Your task to perform on an android device: Clear all items from cart on newegg.com. Add "alienware area 51" to the cart on newegg.com Image 0: 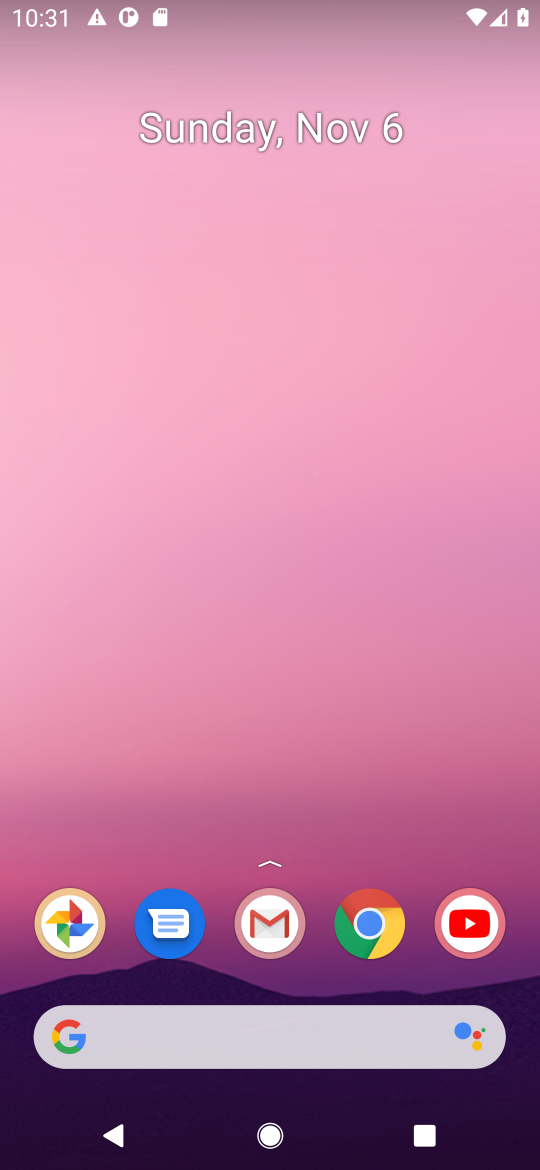
Step 0: click (371, 928)
Your task to perform on an android device: Clear all items from cart on newegg.com. Add "alienware area 51" to the cart on newegg.com Image 1: 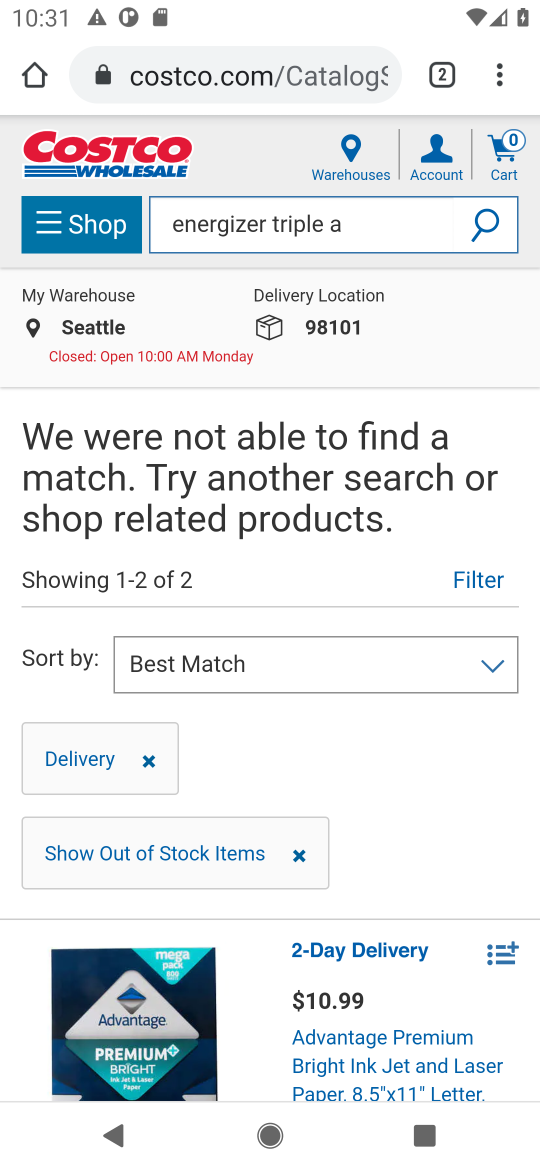
Step 1: click (262, 82)
Your task to perform on an android device: Clear all items from cart on newegg.com. Add "alienware area 51" to the cart on newegg.com Image 2: 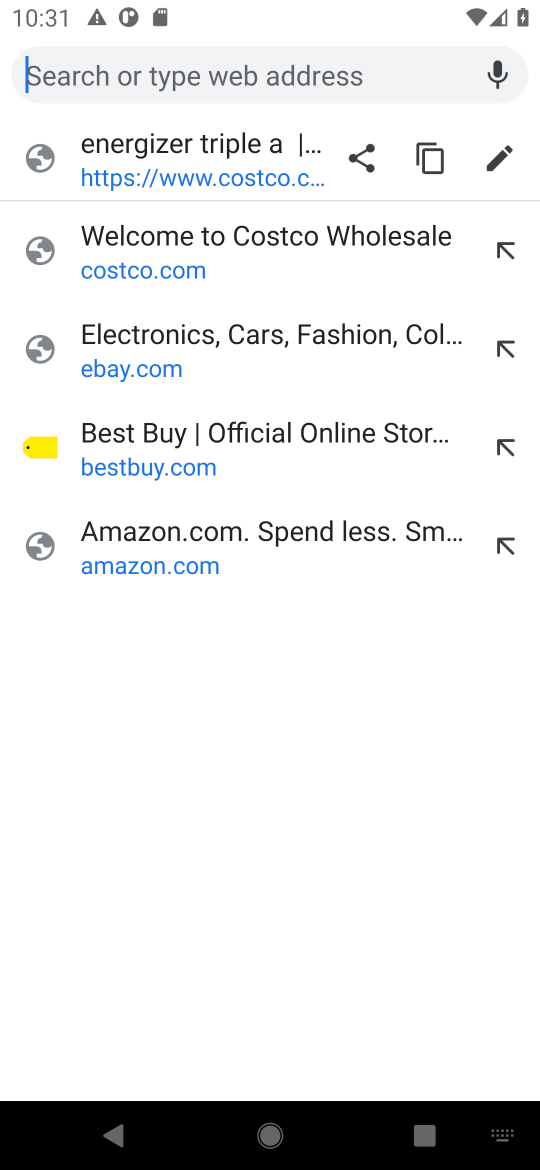
Step 2: type "newegg.com"
Your task to perform on an android device: Clear all items from cart on newegg.com. Add "alienware area 51" to the cart on newegg.com Image 3: 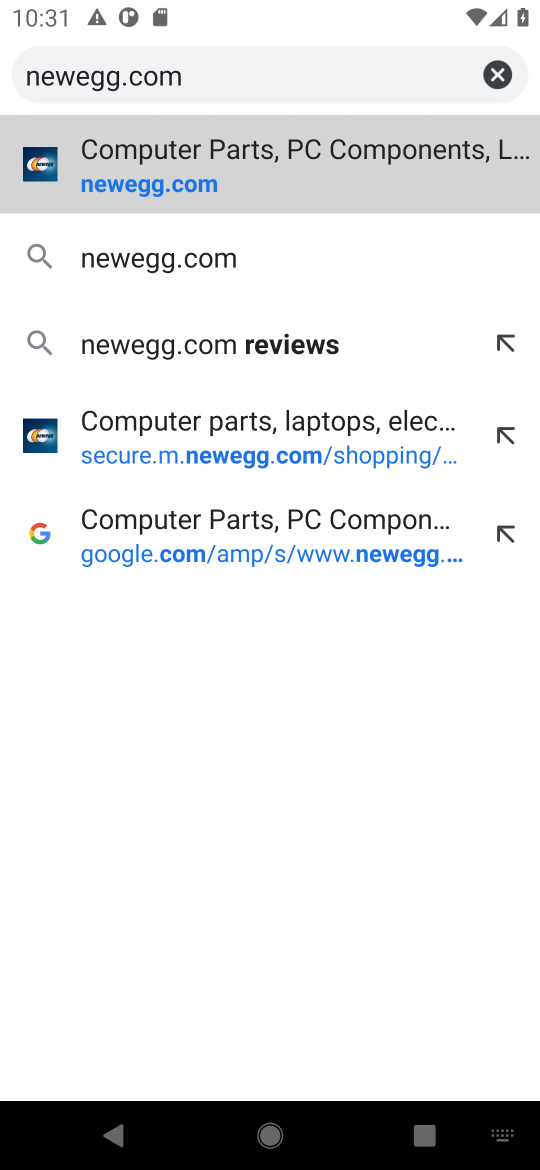
Step 3: click (145, 190)
Your task to perform on an android device: Clear all items from cart on newegg.com. Add "alienware area 51" to the cart on newegg.com Image 4: 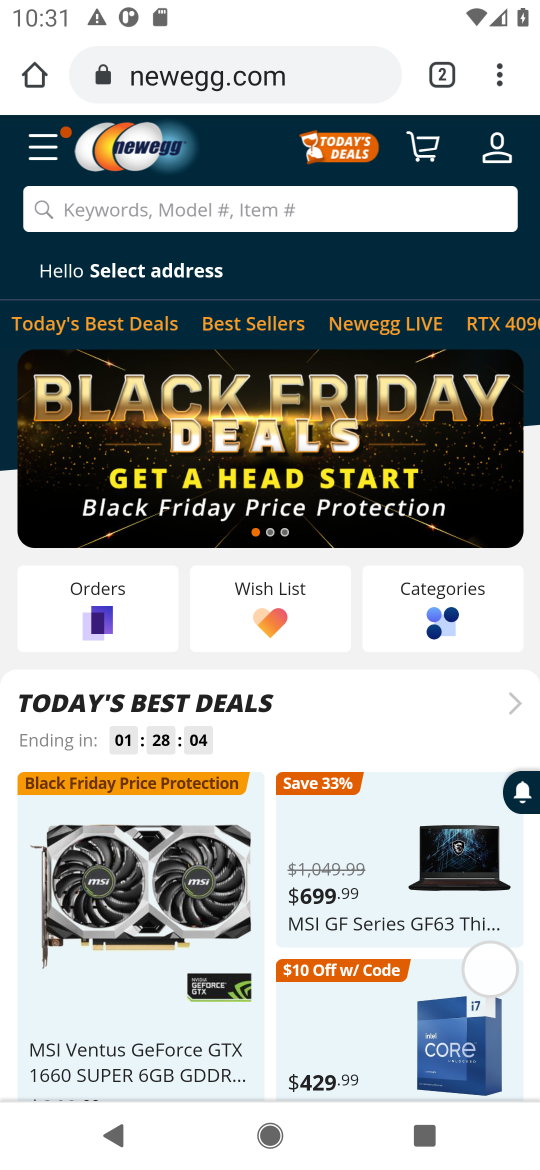
Step 4: click (431, 158)
Your task to perform on an android device: Clear all items from cart on newegg.com. Add "alienware area 51" to the cart on newegg.com Image 5: 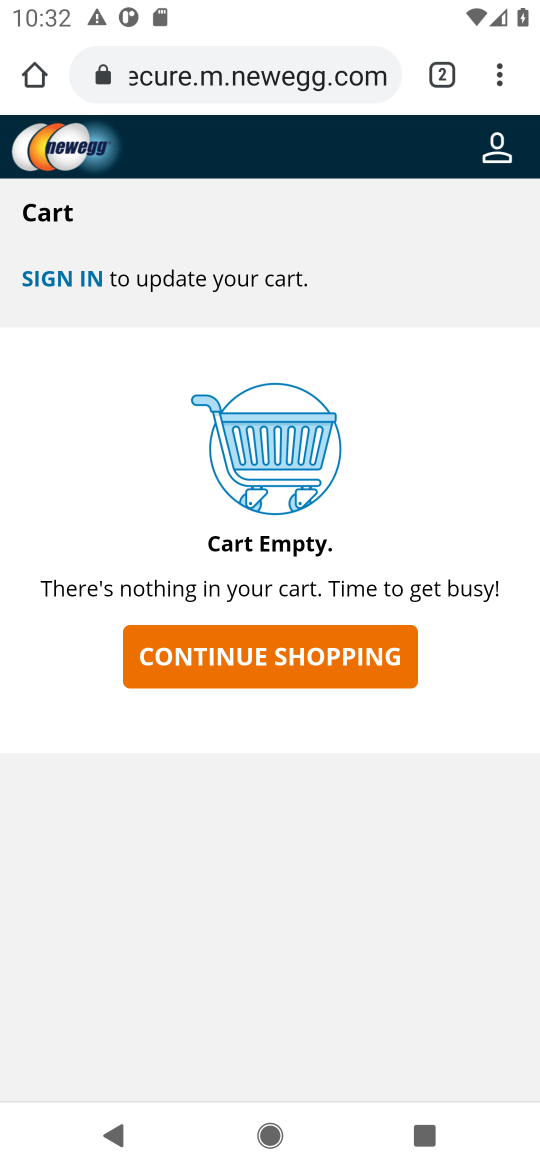
Step 5: click (250, 647)
Your task to perform on an android device: Clear all items from cart on newegg.com. Add "alienware area 51" to the cart on newegg.com Image 6: 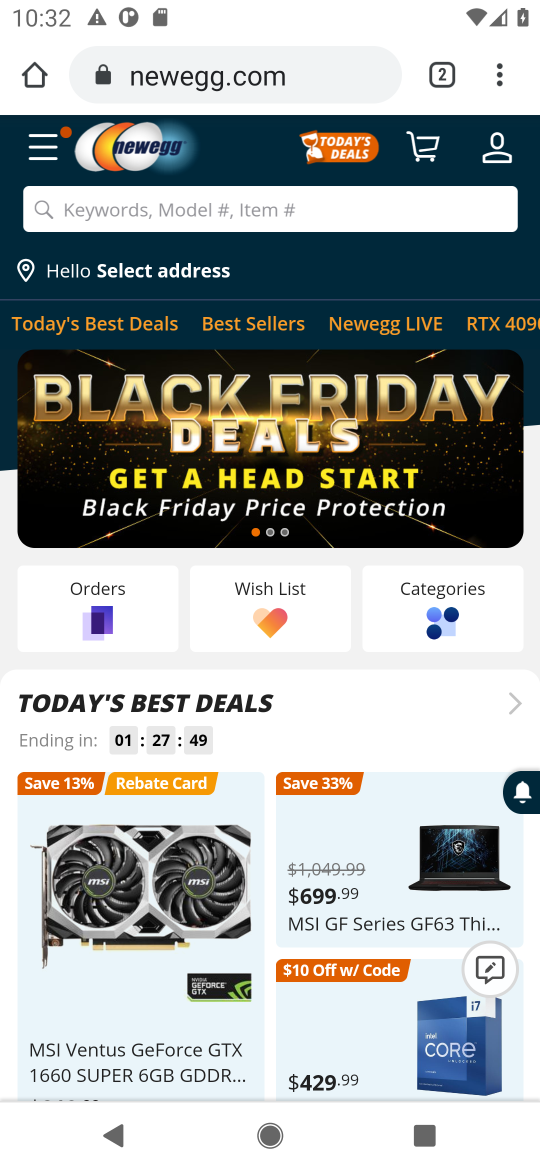
Step 6: click (195, 218)
Your task to perform on an android device: Clear all items from cart on newegg.com. Add "alienware area 51" to the cart on newegg.com Image 7: 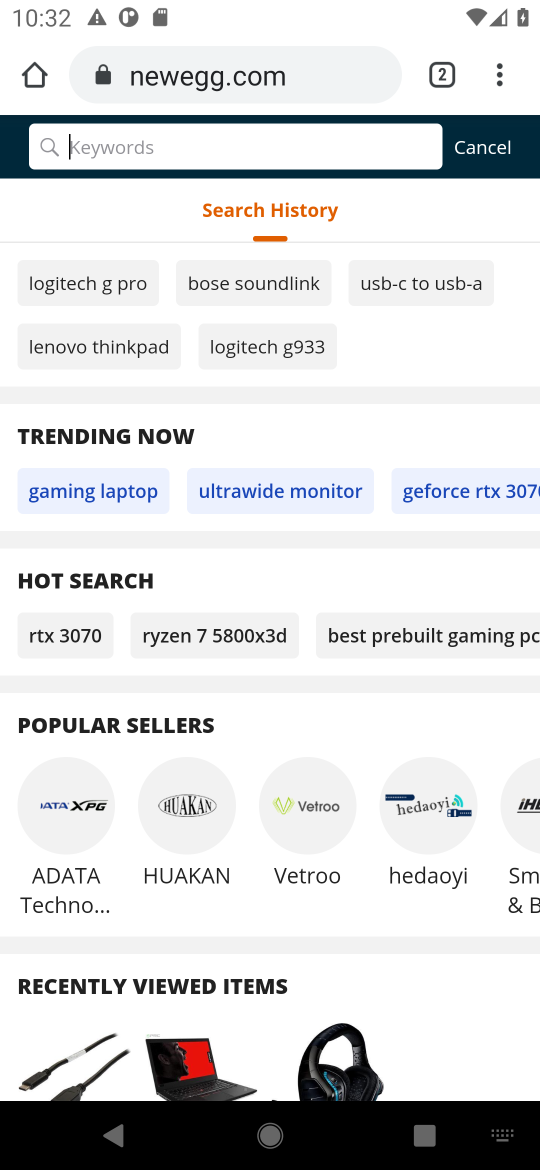
Step 7: type "alienware area 51"
Your task to perform on an android device: Clear all items from cart on newegg.com. Add "alienware area 51" to the cart on newegg.com Image 8: 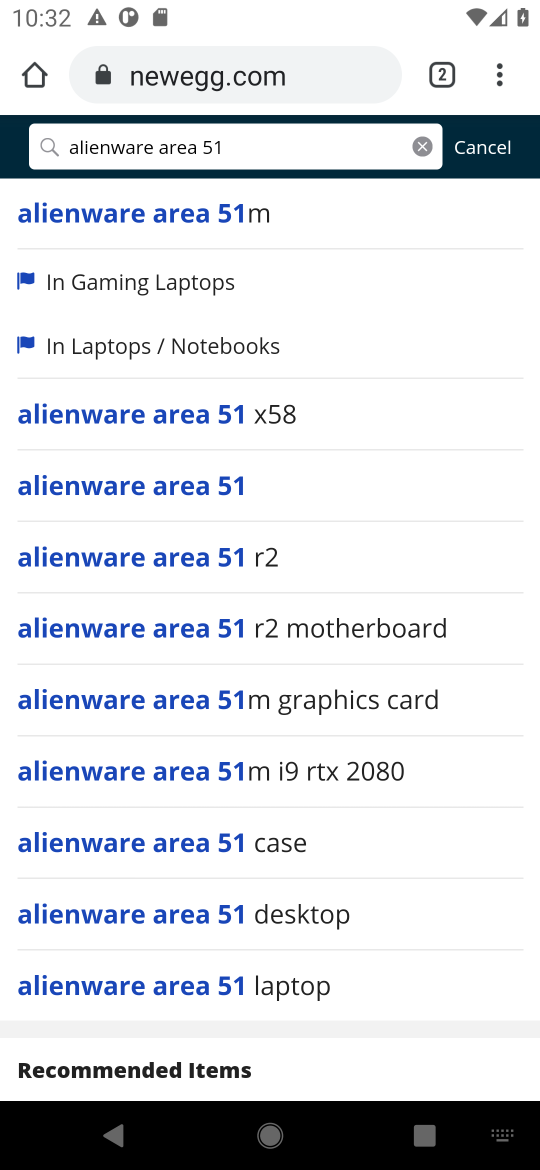
Step 8: click (167, 498)
Your task to perform on an android device: Clear all items from cart on newegg.com. Add "alienware area 51" to the cart on newegg.com Image 9: 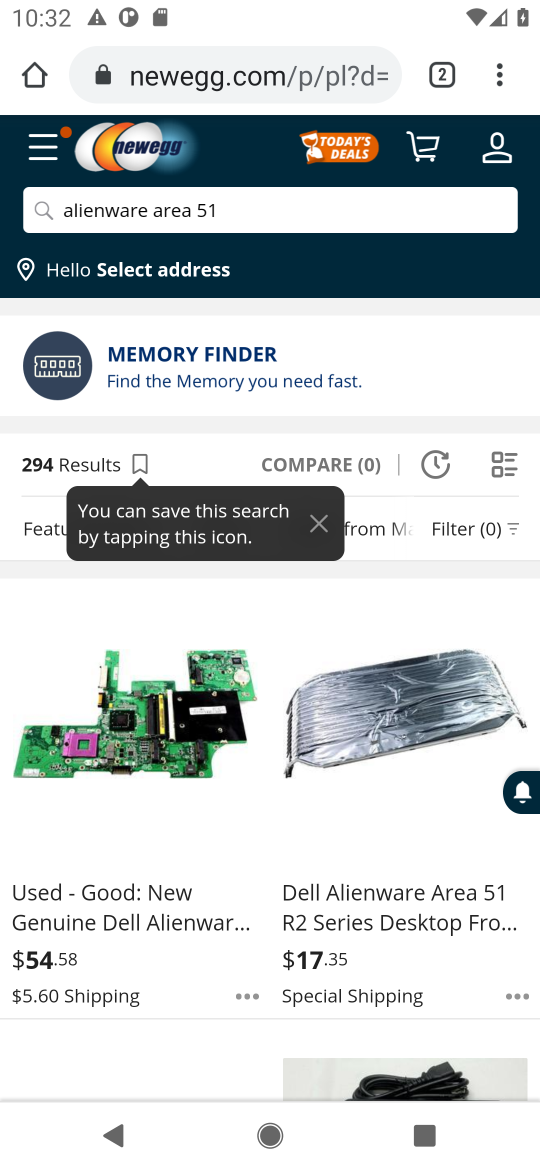
Step 9: click (385, 834)
Your task to perform on an android device: Clear all items from cart on newegg.com. Add "alienware area 51" to the cart on newegg.com Image 10: 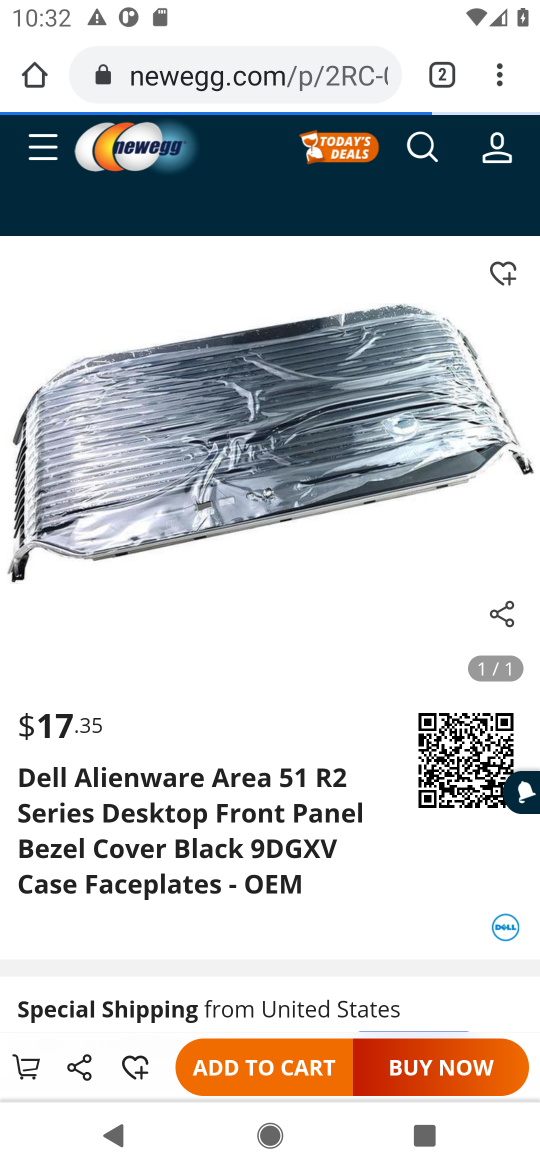
Step 10: drag from (280, 813) to (280, 644)
Your task to perform on an android device: Clear all items from cart on newegg.com. Add "alienware area 51" to the cart on newegg.com Image 11: 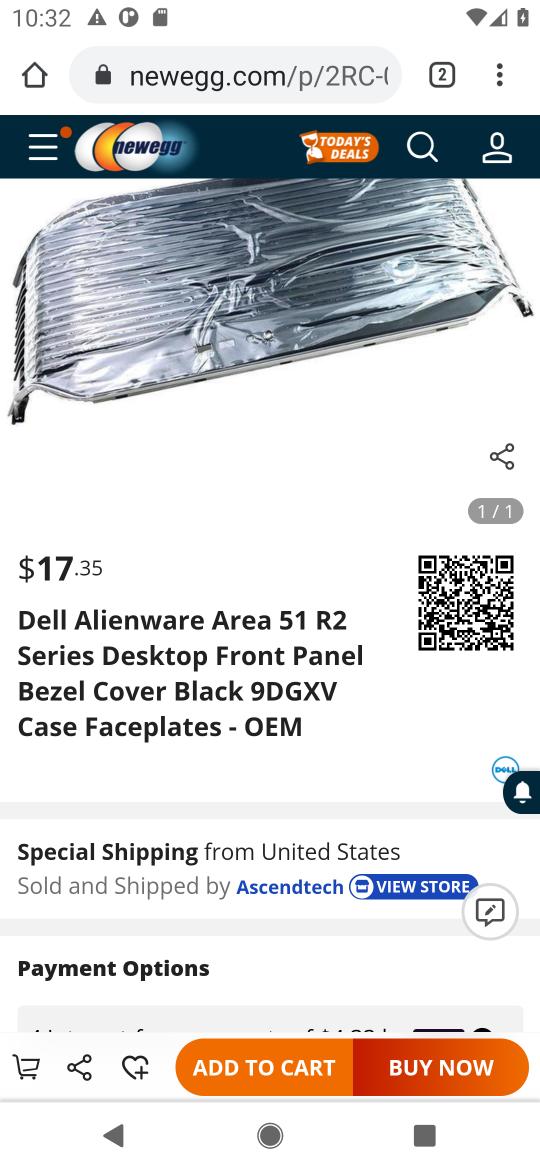
Step 11: click (270, 1065)
Your task to perform on an android device: Clear all items from cart on newegg.com. Add "alienware area 51" to the cart on newegg.com Image 12: 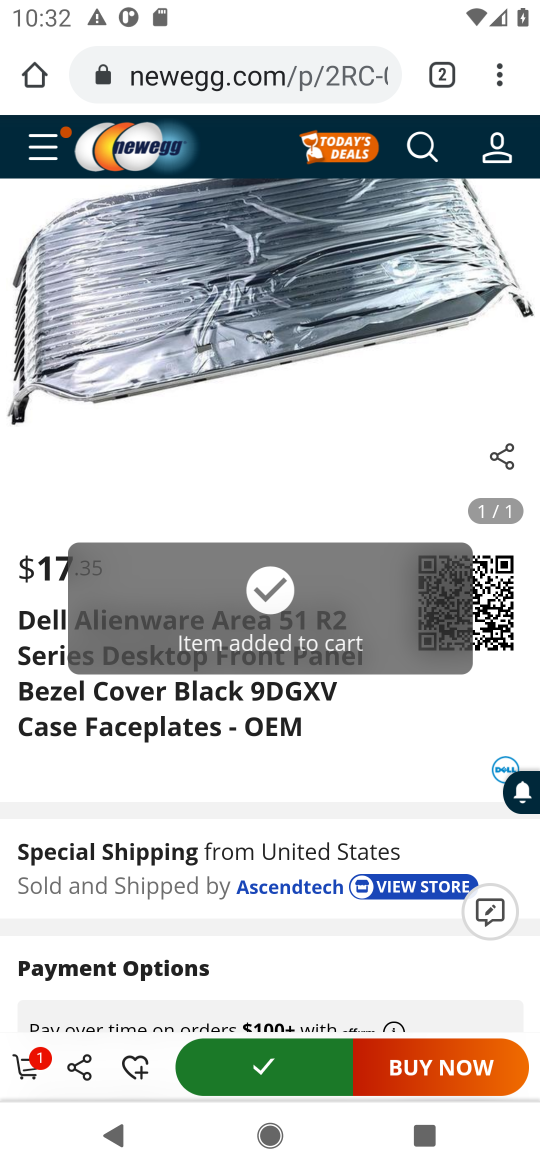
Step 12: task complete